Your task to perform on an android device: move a message to another label in the gmail app Image 0: 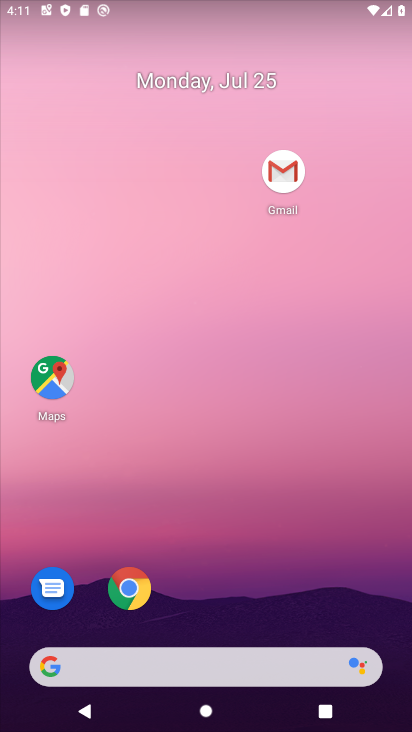
Step 0: drag from (214, 415) to (166, 18)
Your task to perform on an android device: move a message to another label in the gmail app Image 1: 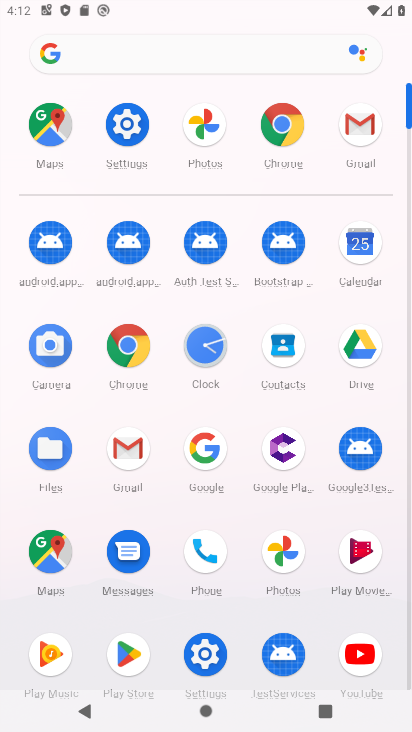
Step 1: click (353, 126)
Your task to perform on an android device: move a message to another label in the gmail app Image 2: 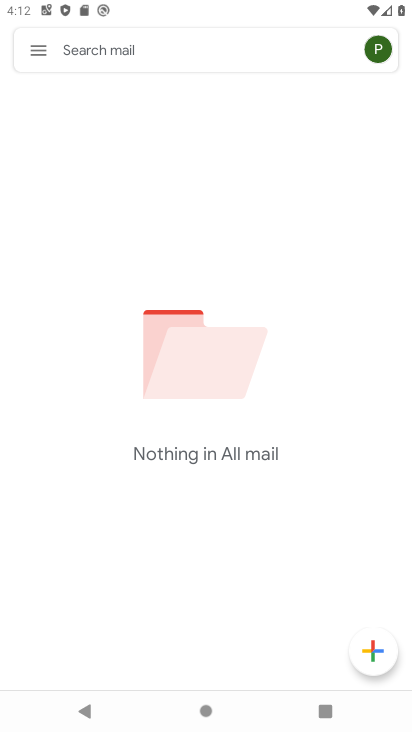
Step 2: click (27, 48)
Your task to perform on an android device: move a message to another label in the gmail app Image 3: 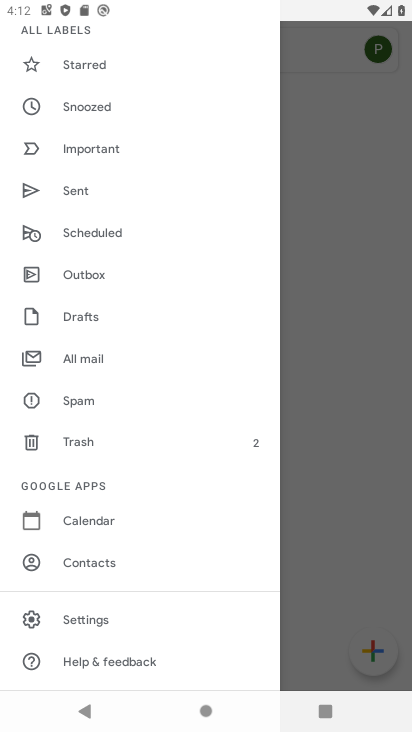
Step 3: task complete